Your task to perform on an android device: Open the calendar app, open the side menu, and click the "Day" option Image 0: 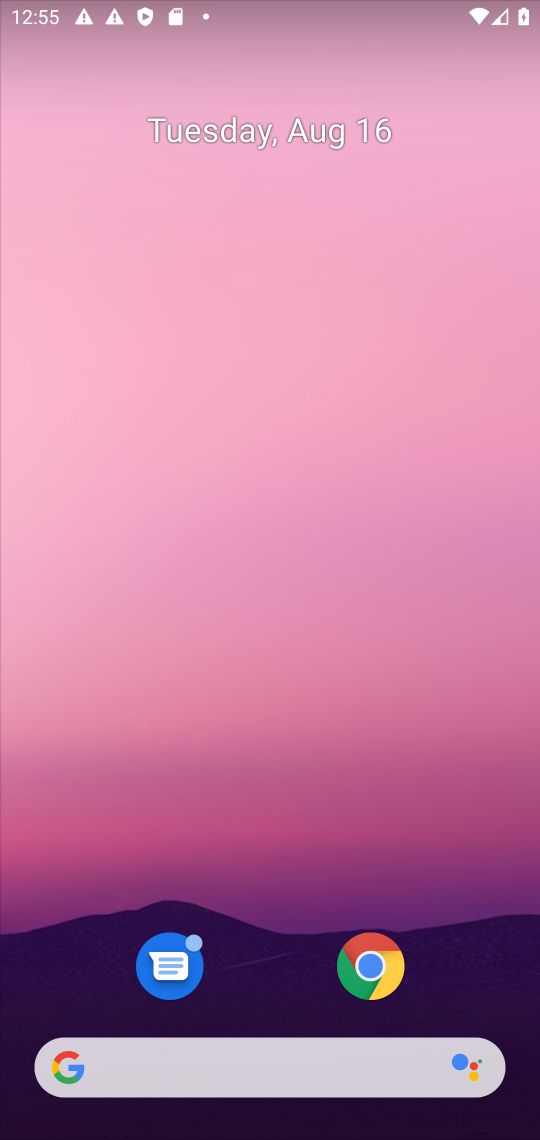
Step 0: drag from (270, 965) to (146, 13)
Your task to perform on an android device: Open the calendar app, open the side menu, and click the "Day" option Image 1: 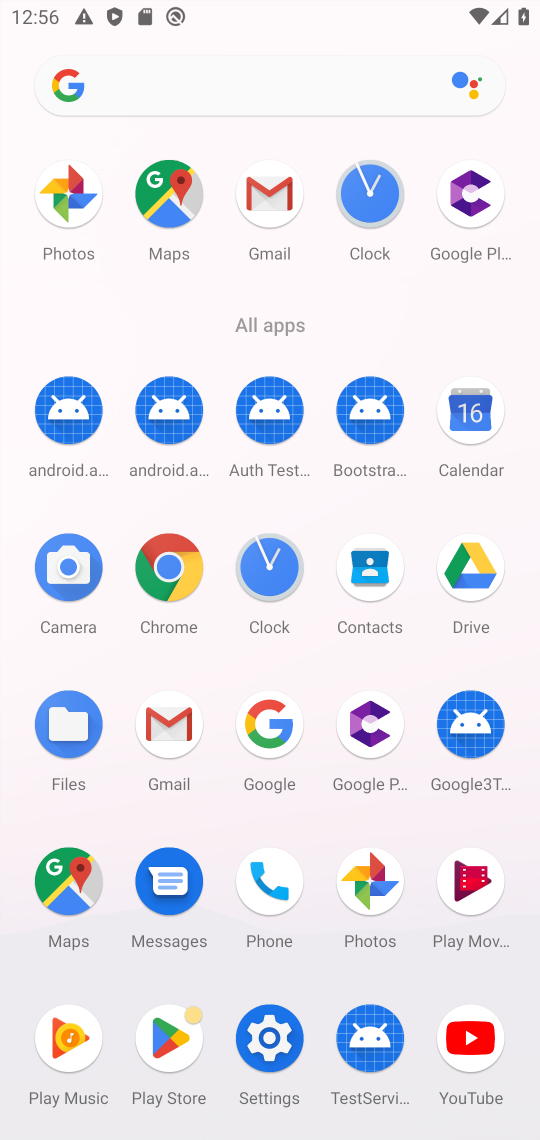
Step 1: click (471, 409)
Your task to perform on an android device: Open the calendar app, open the side menu, and click the "Day" option Image 2: 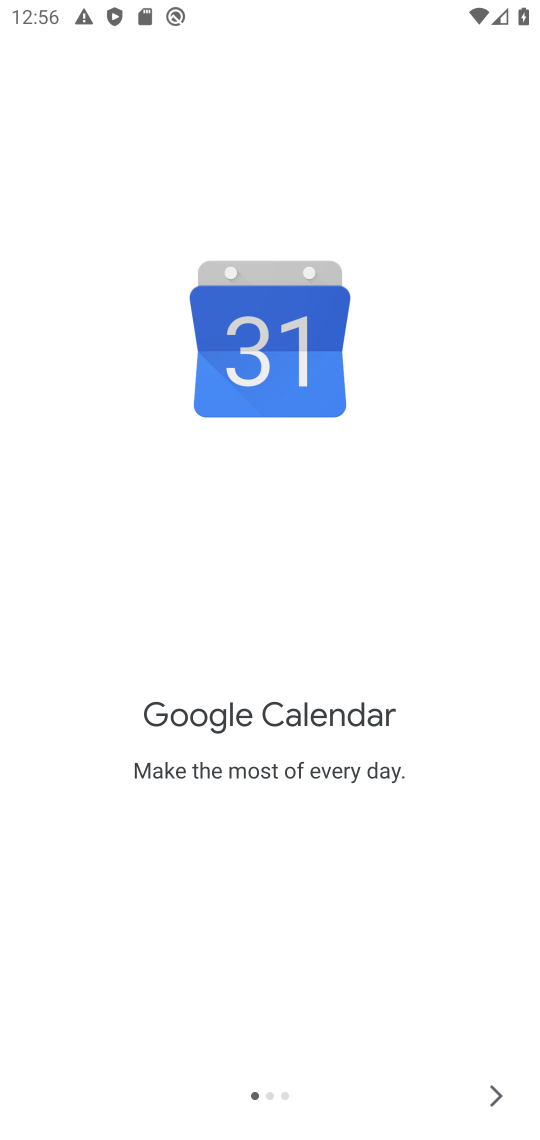
Step 2: click (496, 1087)
Your task to perform on an android device: Open the calendar app, open the side menu, and click the "Day" option Image 3: 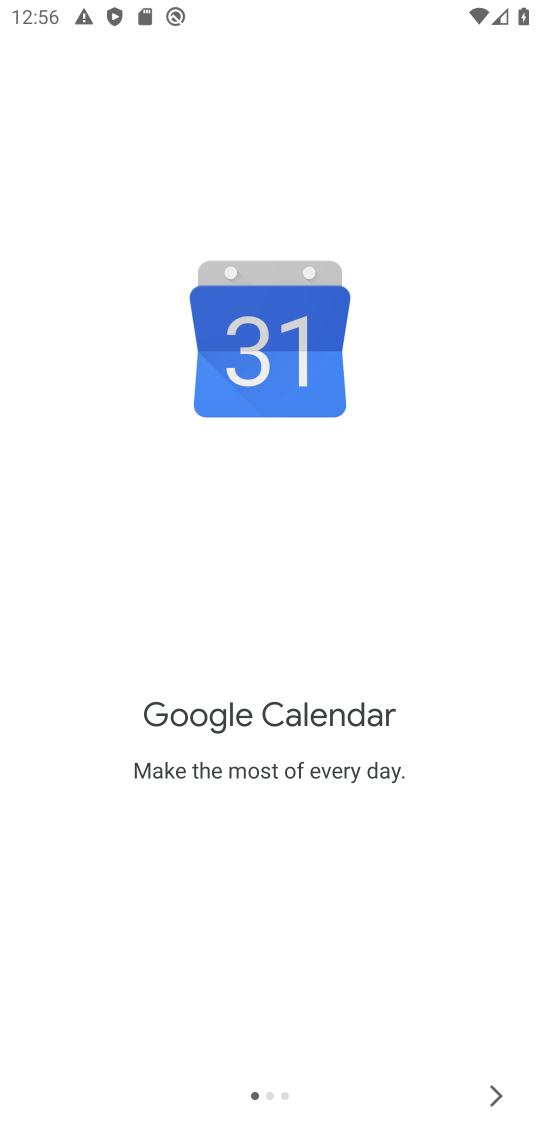
Step 3: click (496, 1087)
Your task to perform on an android device: Open the calendar app, open the side menu, and click the "Day" option Image 4: 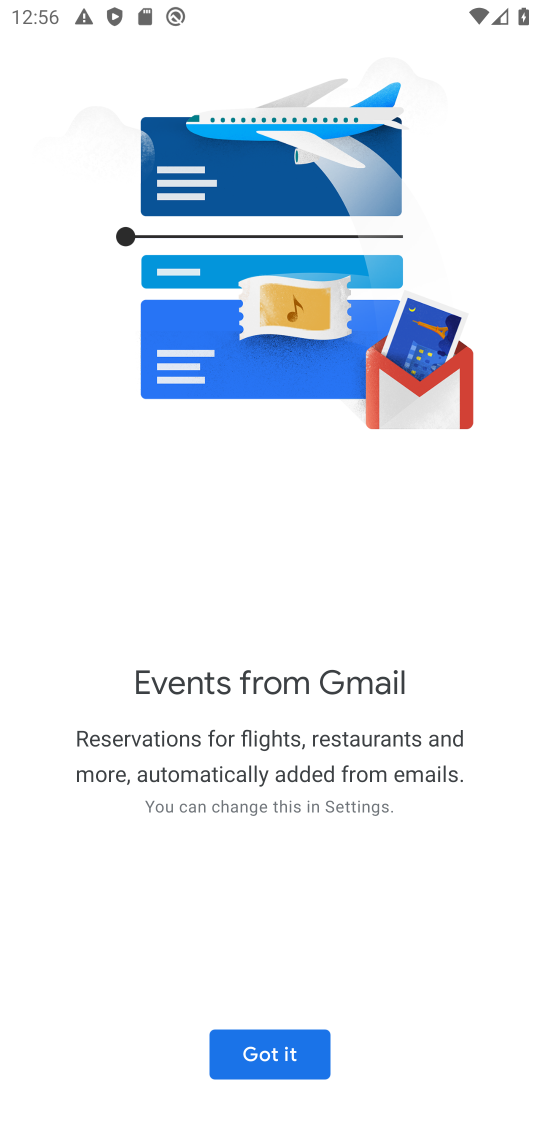
Step 4: click (271, 1056)
Your task to perform on an android device: Open the calendar app, open the side menu, and click the "Day" option Image 5: 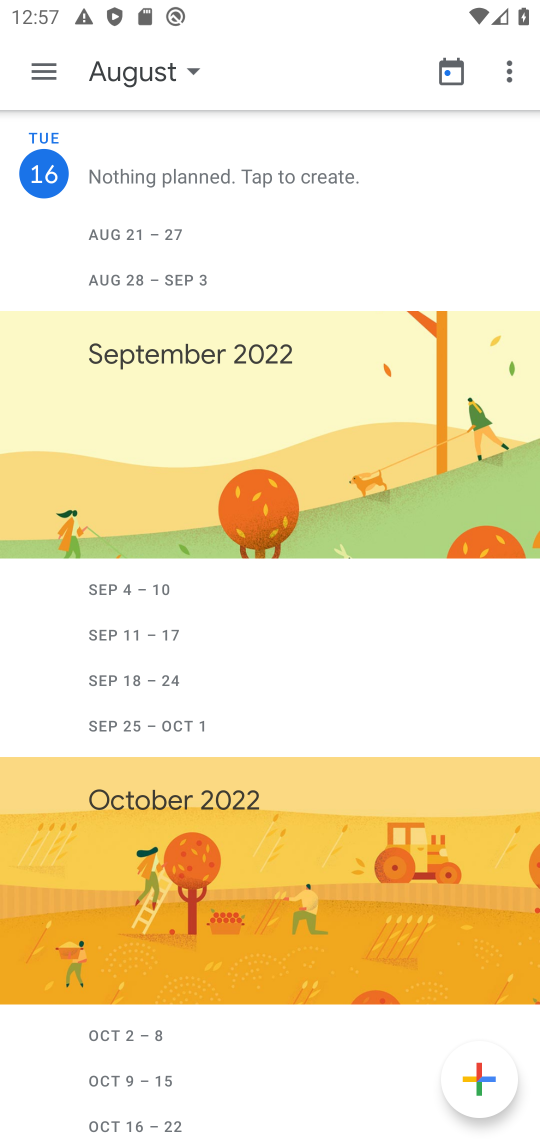
Step 5: click (45, 70)
Your task to perform on an android device: Open the calendar app, open the side menu, and click the "Day" option Image 6: 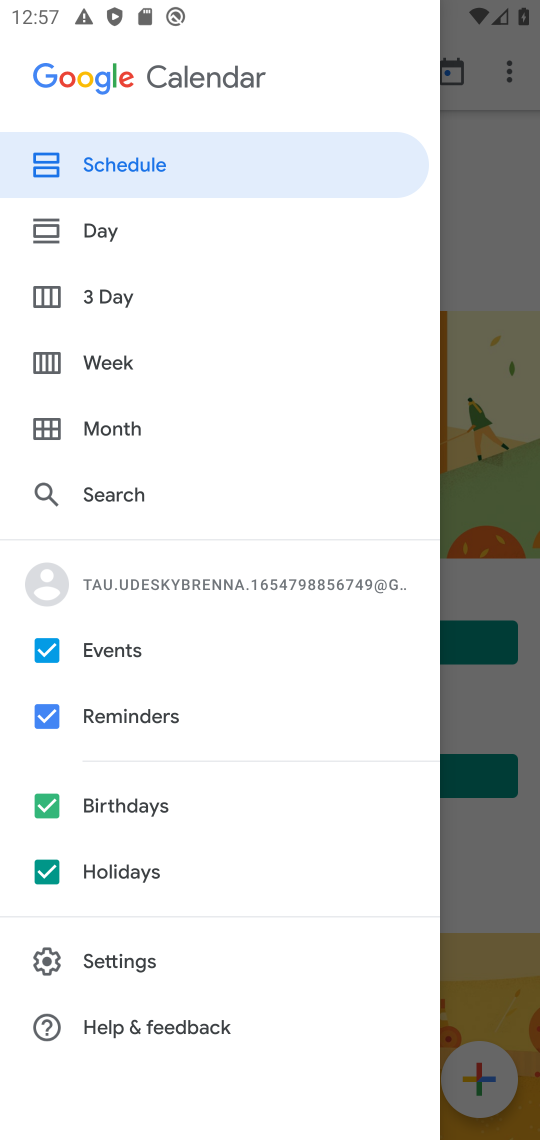
Step 6: click (95, 225)
Your task to perform on an android device: Open the calendar app, open the side menu, and click the "Day" option Image 7: 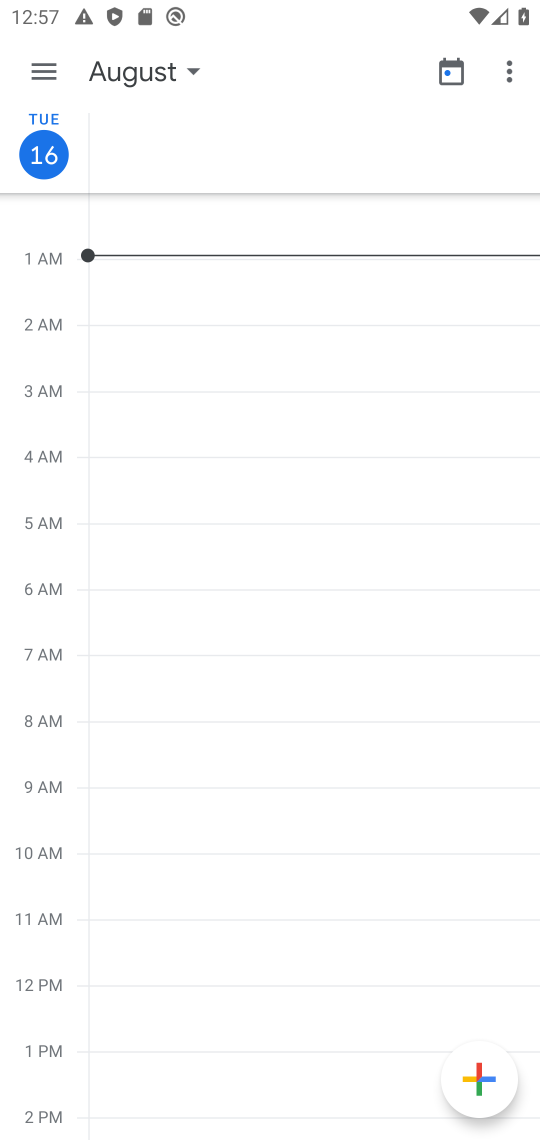
Step 7: task complete